Your task to perform on an android device: Open settings on Google Maps Image 0: 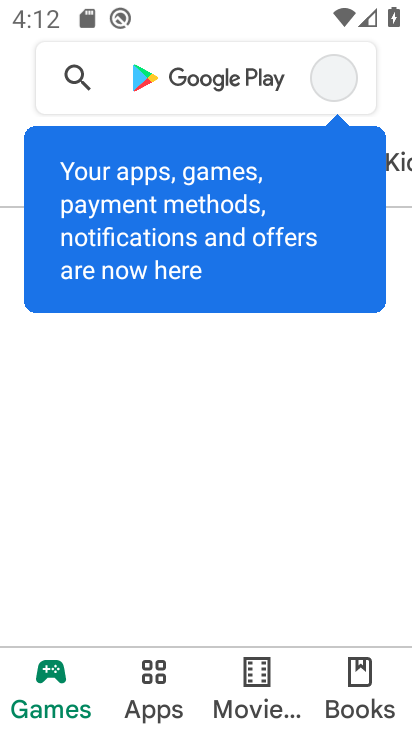
Step 0: press home button
Your task to perform on an android device: Open settings on Google Maps Image 1: 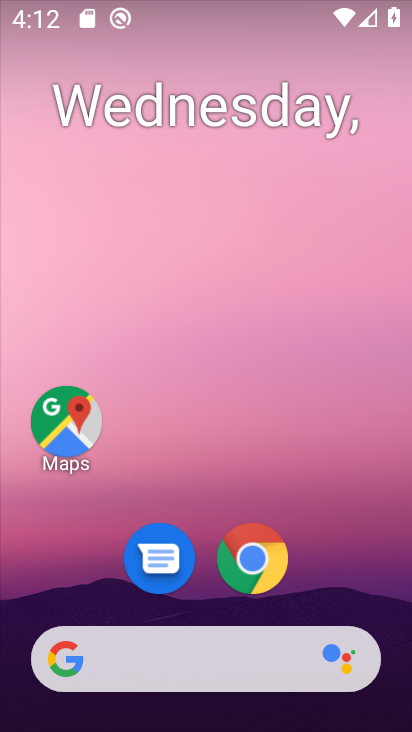
Step 1: drag from (326, 575) to (338, 163)
Your task to perform on an android device: Open settings on Google Maps Image 2: 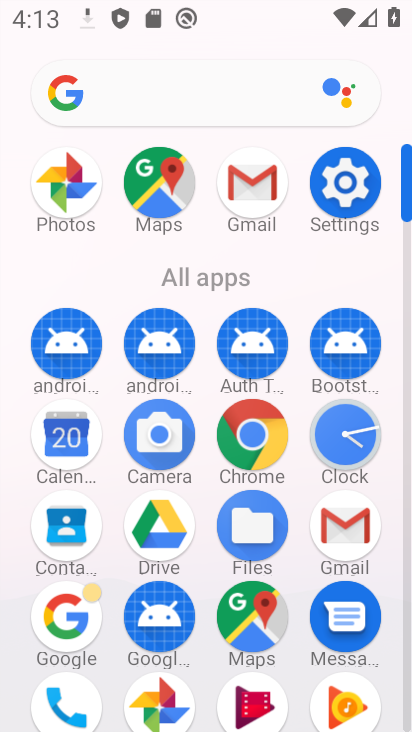
Step 2: click (253, 630)
Your task to perform on an android device: Open settings on Google Maps Image 3: 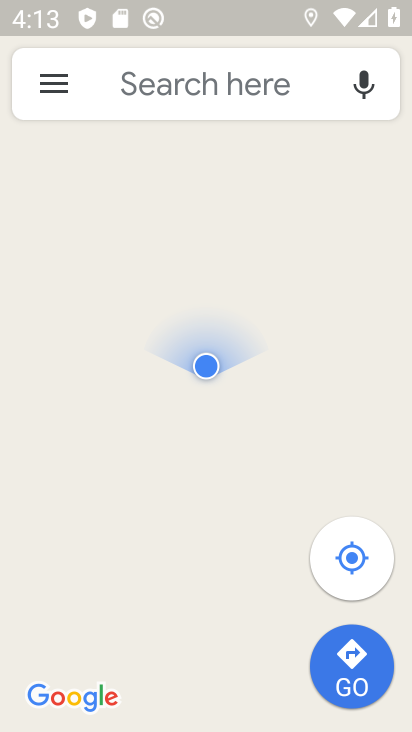
Step 3: click (52, 80)
Your task to perform on an android device: Open settings on Google Maps Image 4: 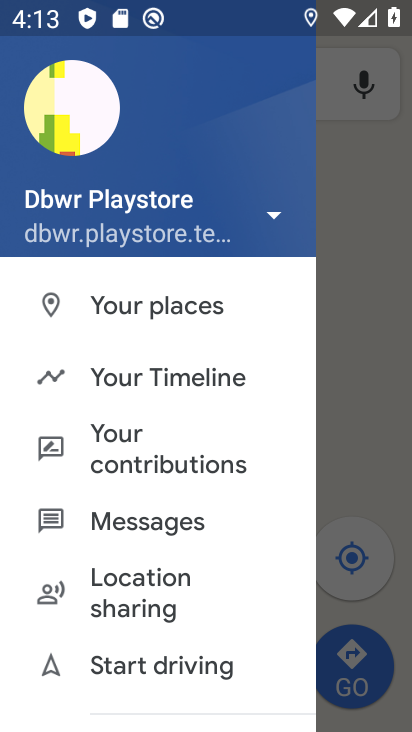
Step 4: drag from (247, 609) to (267, 384)
Your task to perform on an android device: Open settings on Google Maps Image 5: 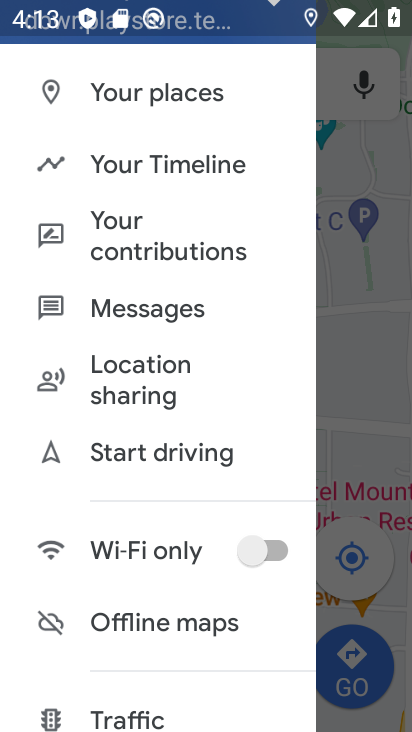
Step 5: drag from (254, 634) to (241, 385)
Your task to perform on an android device: Open settings on Google Maps Image 6: 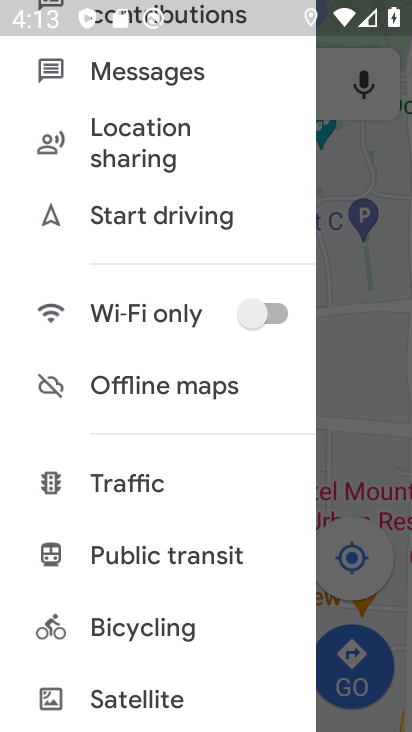
Step 6: drag from (240, 609) to (246, 414)
Your task to perform on an android device: Open settings on Google Maps Image 7: 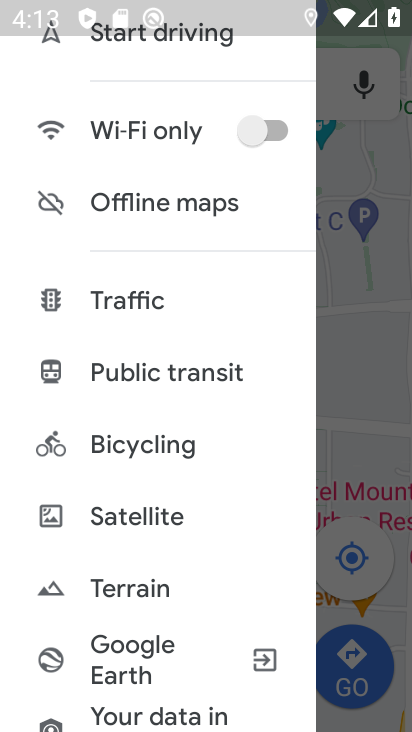
Step 7: drag from (212, 613) to (227, 337)
Your task to perform on an android device: Open settings on Google Maps Image 8: 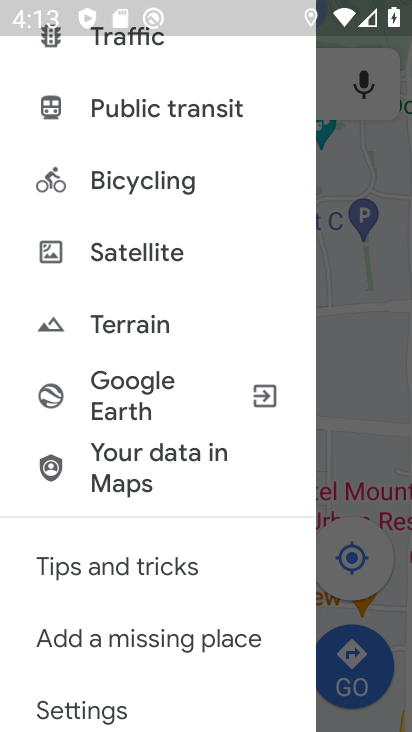
Step 8: drag from (231, 665) to (247, 490)
Your task to perform on an android device: Open settings on Google Maps Image 9: 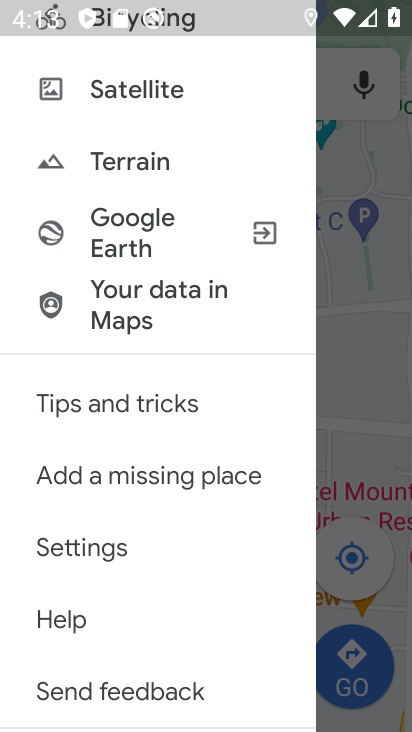
Step 9: click (118, 549)
Your task to perform on an android device: Open settings on Google Maps Image 10: 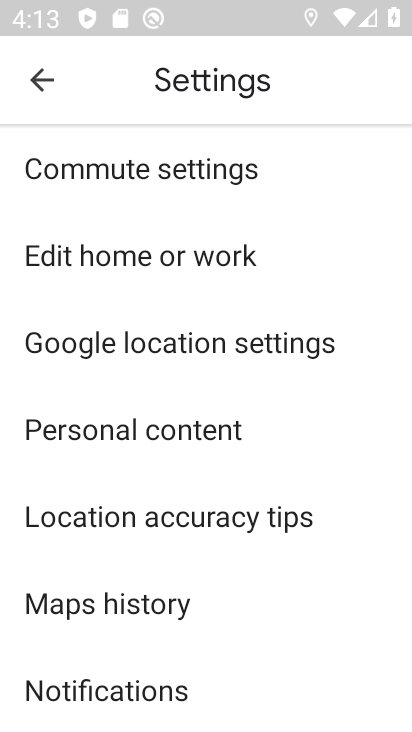
Step 10: task complete